Your task to perform on an android device: Open display settings Image 0: 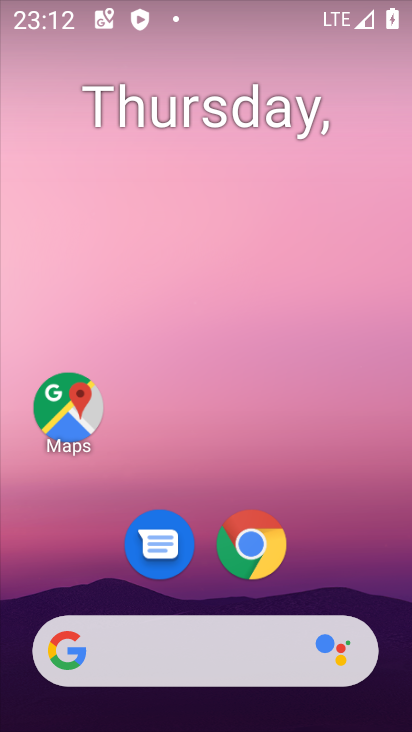
Step 0: drag from (190, 389) to (136, 135)
Your task to perform on an android device: Open display settings Image 1: 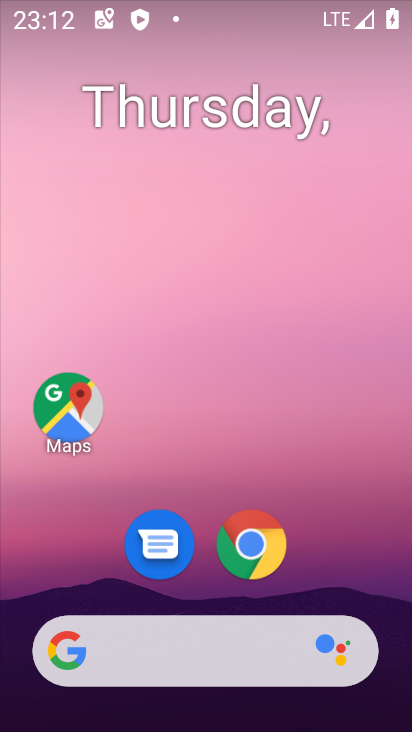
Step 1: drag from (204, 480) to (151, 71)
Your task to perform on an android device: Open display settings Image 2: 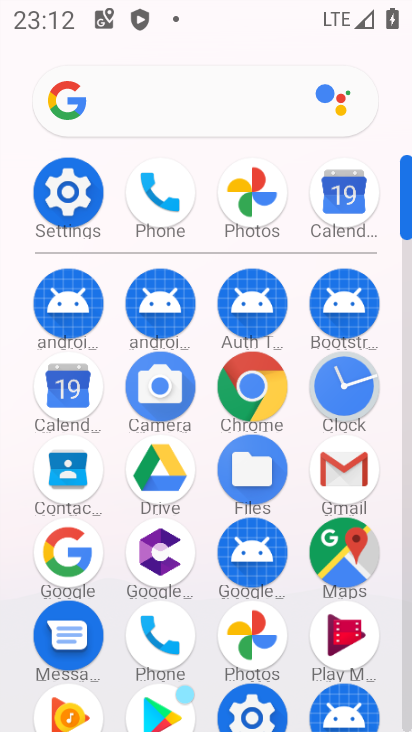
Step 2: click (256, 723)
Your task to perform on an android device: Open display settings Image 3: 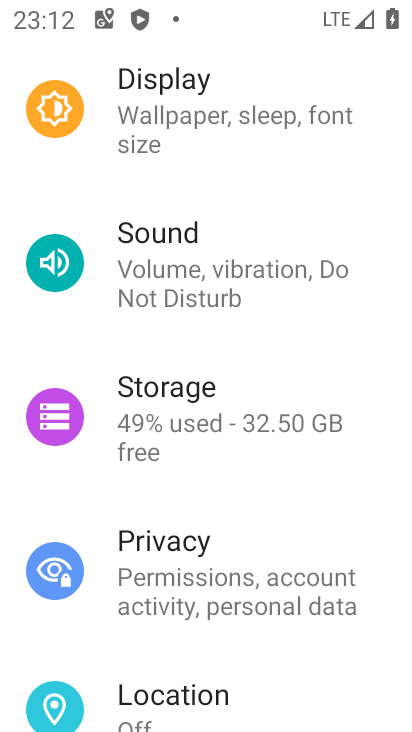
Step 3: click (176, 139)
Your task to perform on an android device: Open display settings Image 4: 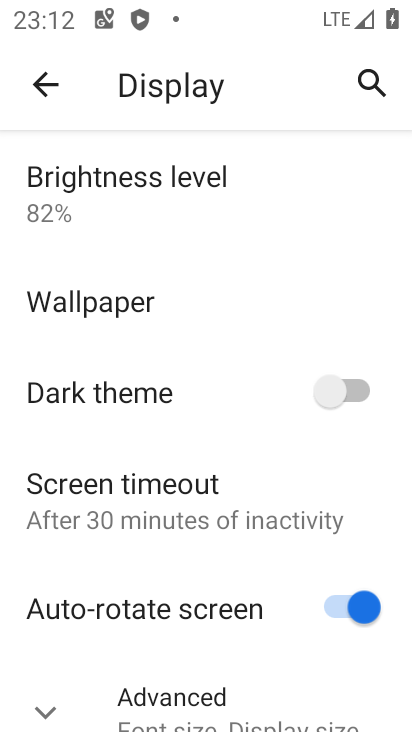
Step 4: click (152, 706)
Your task to perform on an android device: Open display settings Image 5: 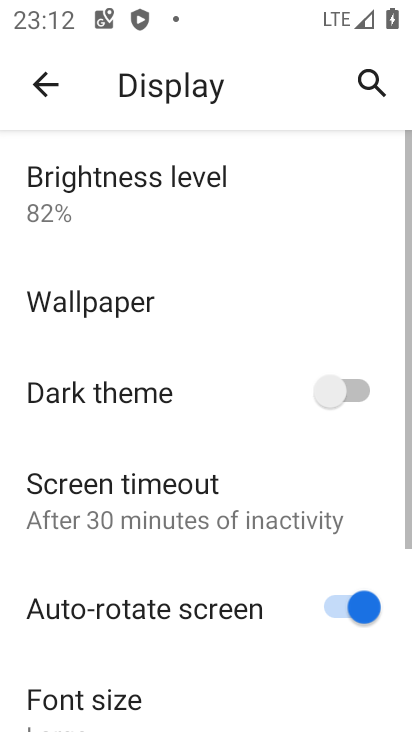
Step 5: task complete